Your task to perform on an android device: What is the news today? Image 0: 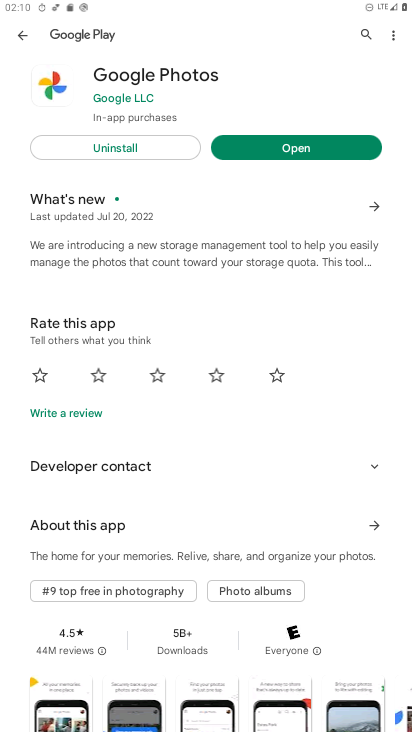
Step 0: press home button
Your task to perform on an android device: What is the news today? Image 1: 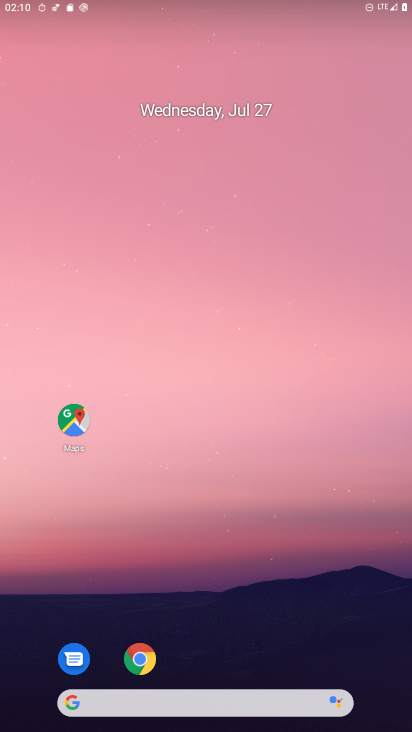
Step 1: drag from (277, 604) to (250, 95)
Your task to perform on an android device: What is the news today? Image 2: 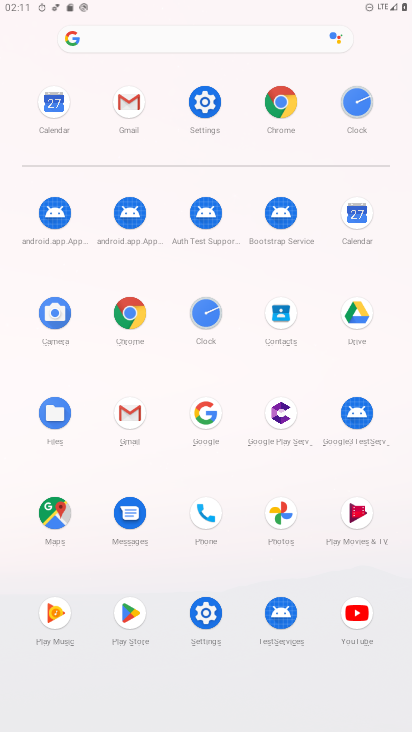
Step 2: click (285, 104)
Your task to perform on an android device: What is the news today? Image 3: 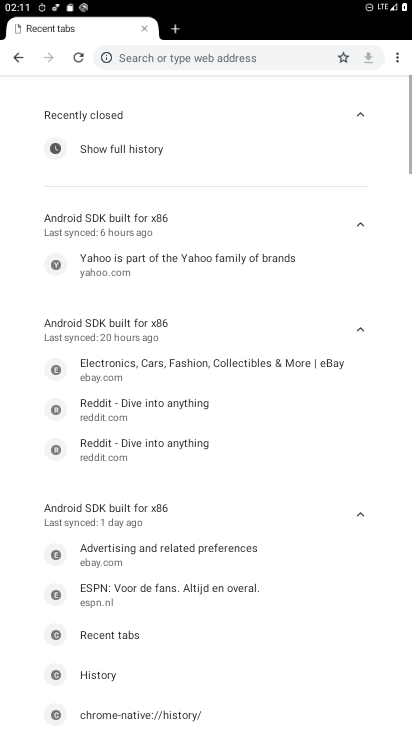
Step 3: click (265, 61)
Your task to perform on an android device: What is the news today? Image 4: 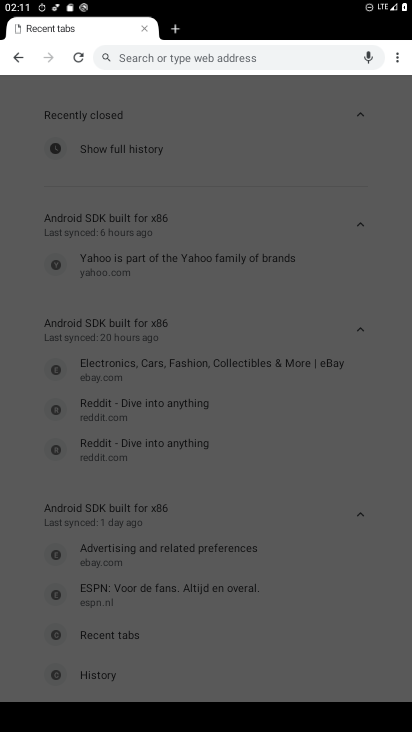
Step 4: type "news"
Your task to perform on an android device: What is the news today? Image 5: 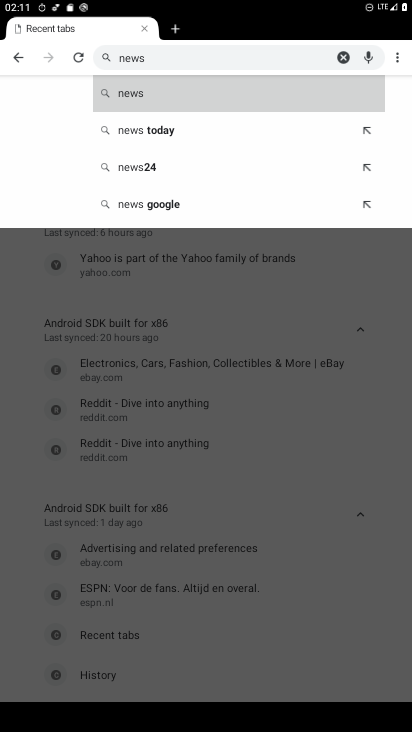
Step 5: click (122, 97)
Your task to perform on an android device: What is the news today? Image 6: 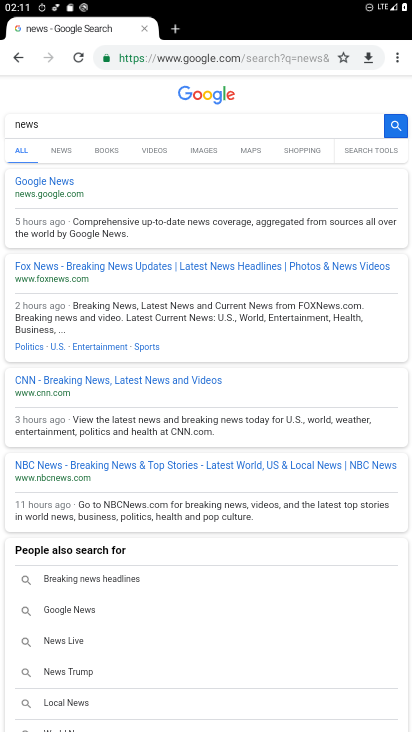
Step 6: click (48, 178)
Your task to perform on an android device: What is the news today? Image 7: 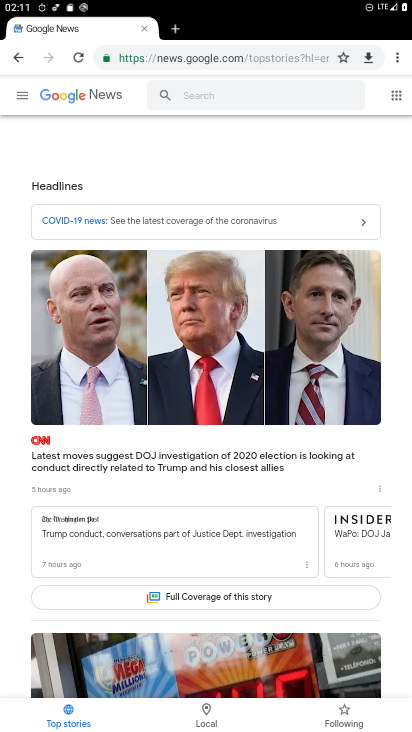
Step 7: task complete